Your task to perform on an android device: turn notification dots off Image 0: 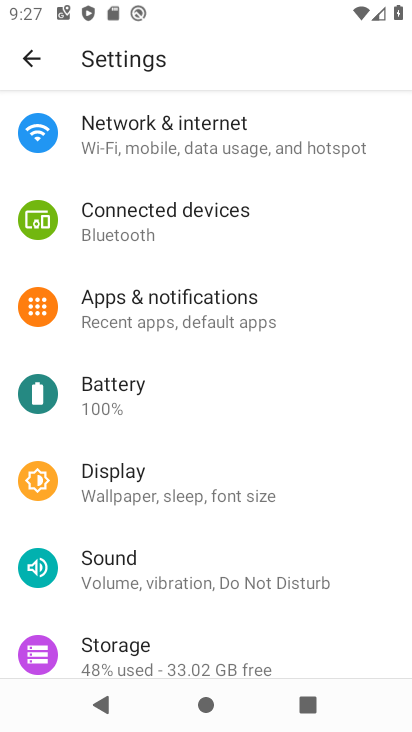
Step 0: click (202, 313)
Your task to perform on an android device: turn notification dots off Image 1: 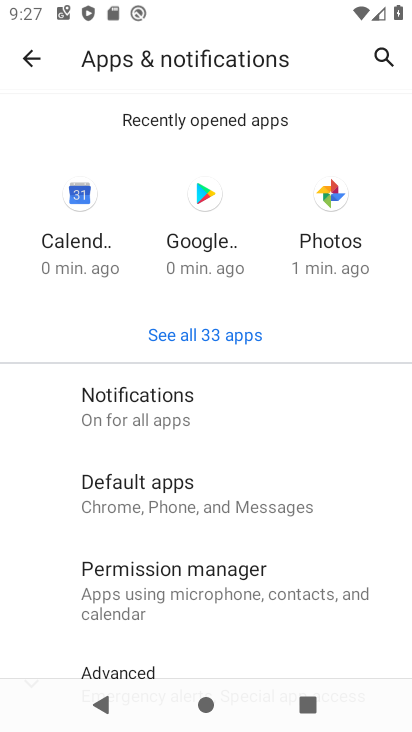
Step 1: click (162, 412)
Your task to perform on an android device: turn notification dots off Image 2: 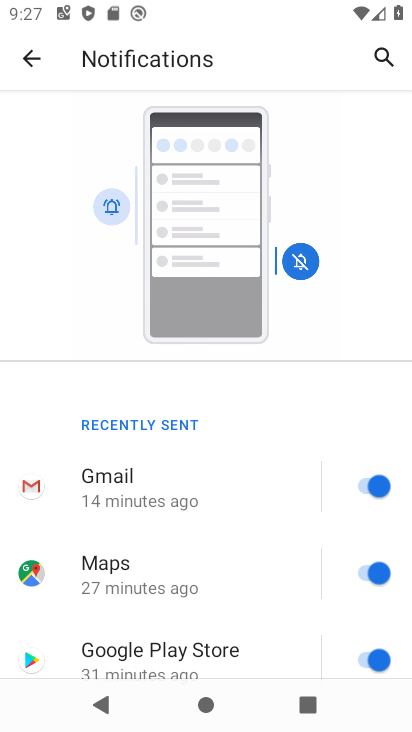
Step 2: drag from (124, 653) to (64, 404)
Your task to perform on an android device: turn notification dots off Image 3: 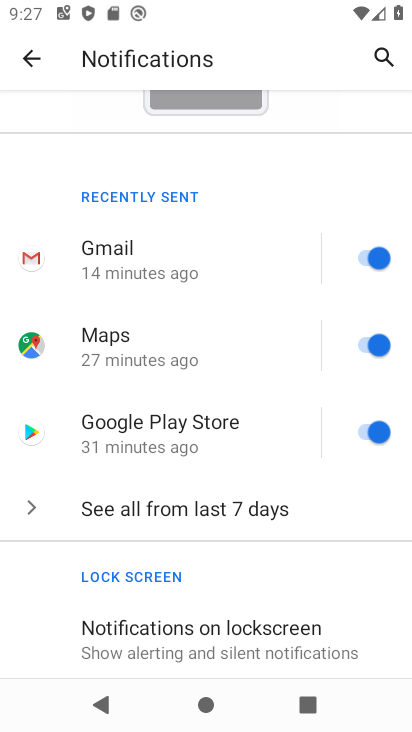
Step 3: drag from (57, 594) to (55, 336)
Your task to perform on an android device: turn notification dots off Image 4: 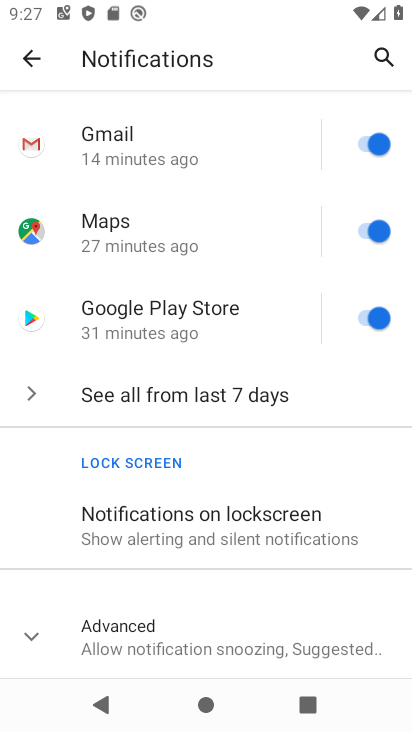
Step 4: click (202, 637)
Your task to perform on an android device: turn notification dots off Image 5: 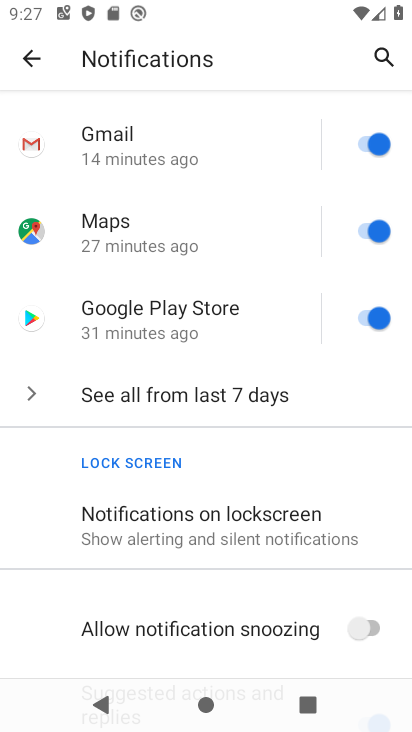
Step 5: drag from (181, 650) to (157, 450)
Your task to perform on an android device: turn notification dots off Image 6: 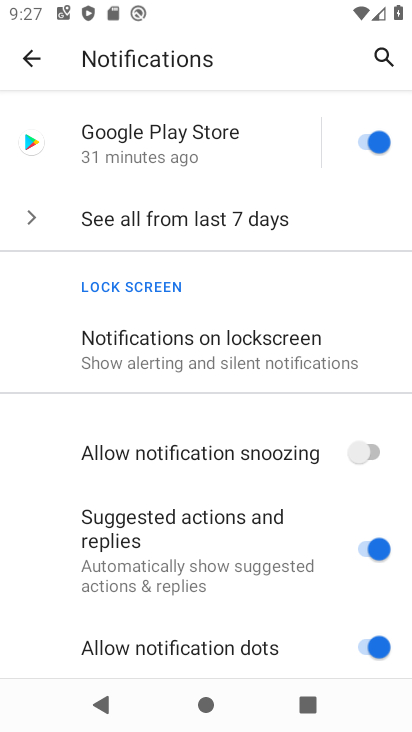
Step 6: drag from (222, 637) to (186, 424)
Your task to perform on an android device: turn notification dots off Image 7: 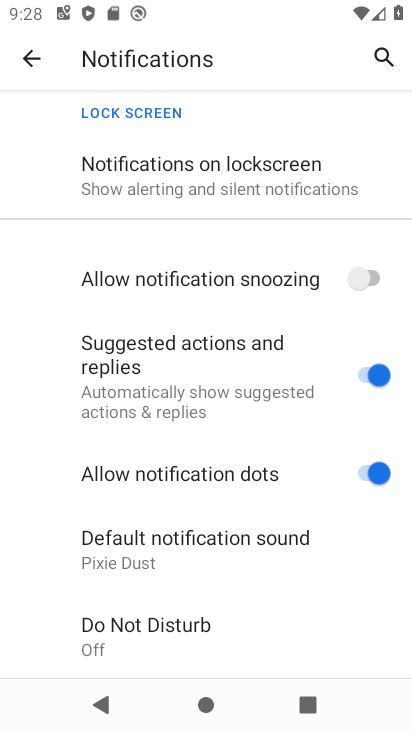
Step 7: click (363, 466)
Your task to perform on an android device: turn notification dots off Image 8: 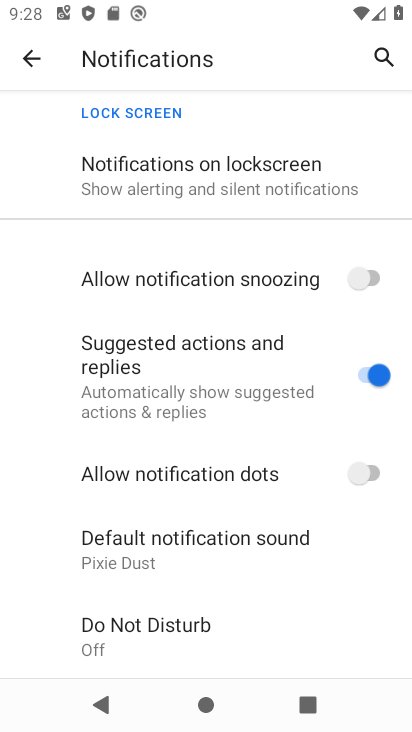
Step 8: task complete